Your task to perform on an android device: turn on sleep mode Image 0: 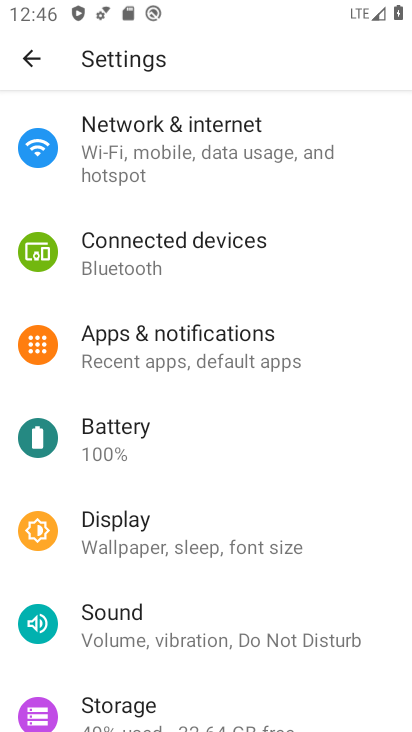
Step 0: click (130, 541)
Your task to perform on an android device: turn on sleep mode Image 1: 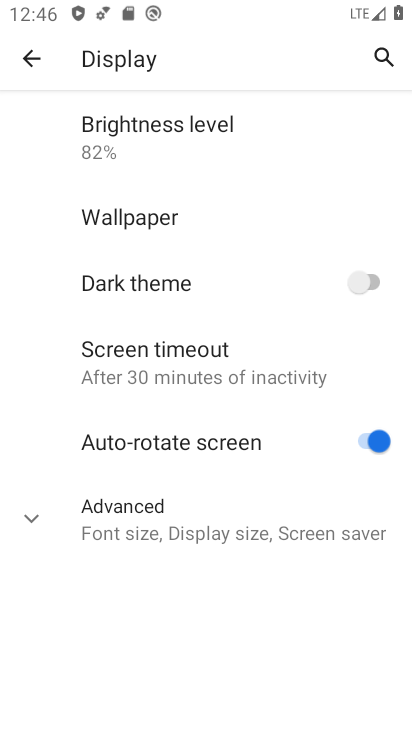
Step 1: task complete